Your task to perform on an android device: Go to Yahoo.com Image 0: 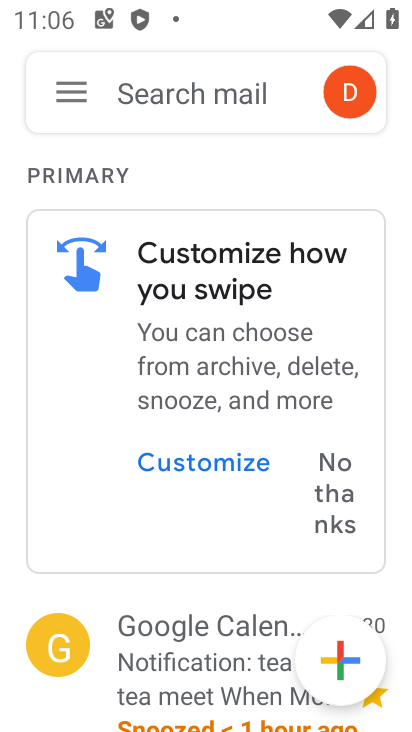
Step 0: press home button
Your task to perform on an android device: Go to Yahoo.com Image 1: 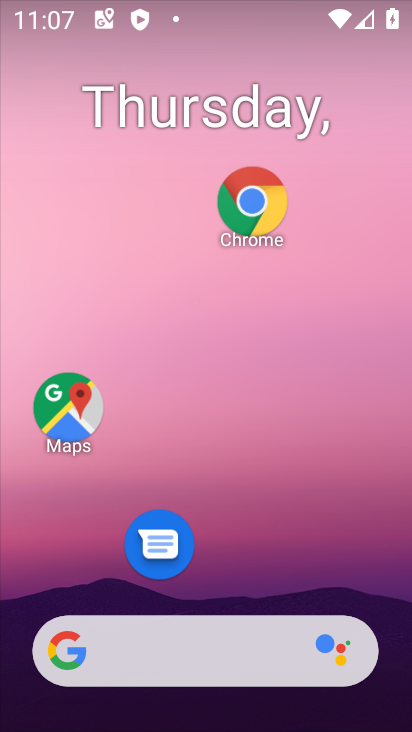
Step 1: click (248, 195)
Your task to perform on an android device: Go to Yahoo.com Image 2: 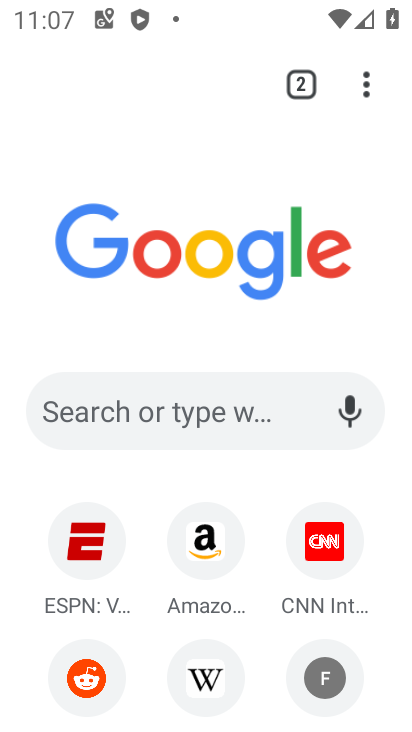
Step 2: click (145, 407)
Your task to perform on an android device: Go to Yahoo.com Image 3: 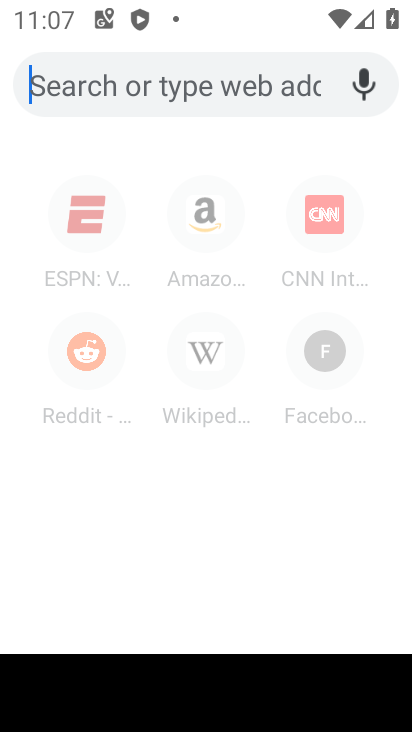
Step 3: type "yahoo.com"
Your task to perform on an android device: Go to Yahoo.com Image 4: 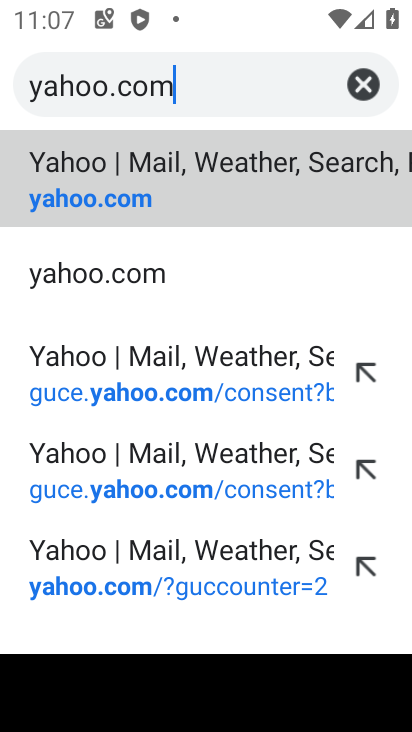
Step 4: click (181, 175)
Your task to perform on an android device: Go to Yahoo.com Image 5: 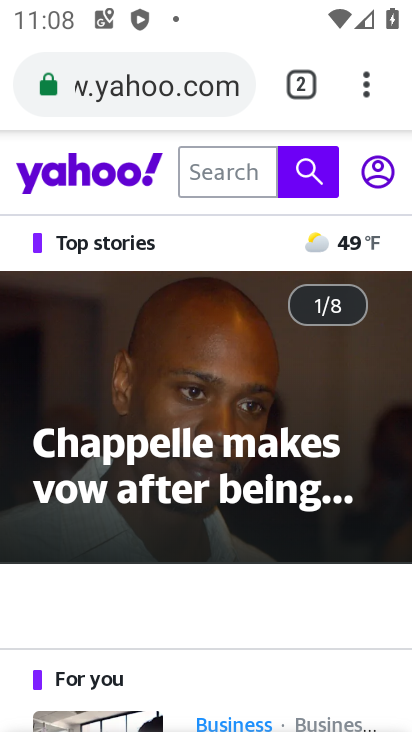
Step 5: task complete